Your task to perform on an android device: Go to Wikipedia Image 0: 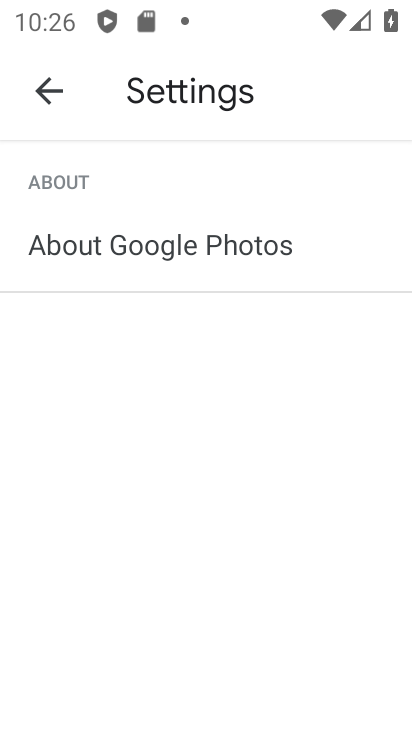
Step 0: press home button
Your task to perform on an android device: Go to Wikipedia Image 1: 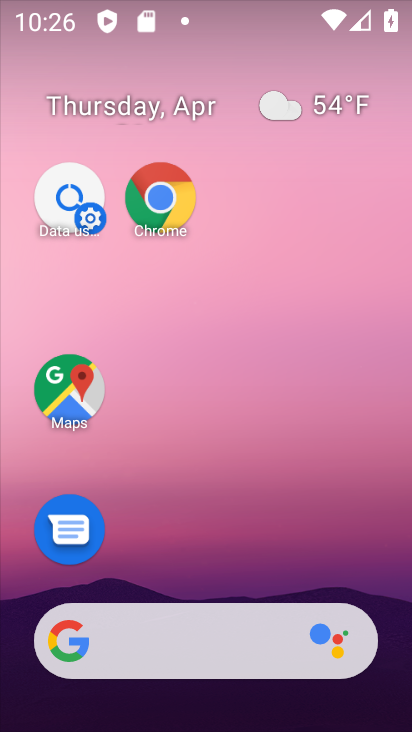
Step 1: drag from (199, 592) to (236, 30)
Your task to perform on an android device: Go to Wikipedia Image 2: 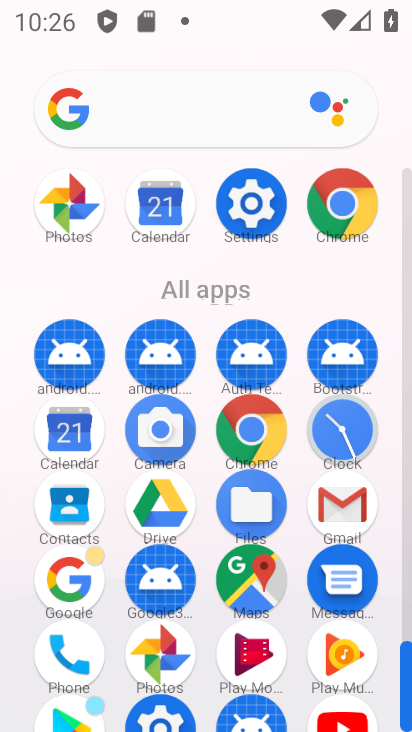
Step 2: click (245, 422)
Your task to perform on an android device: Go to Wikipedia Image 3: 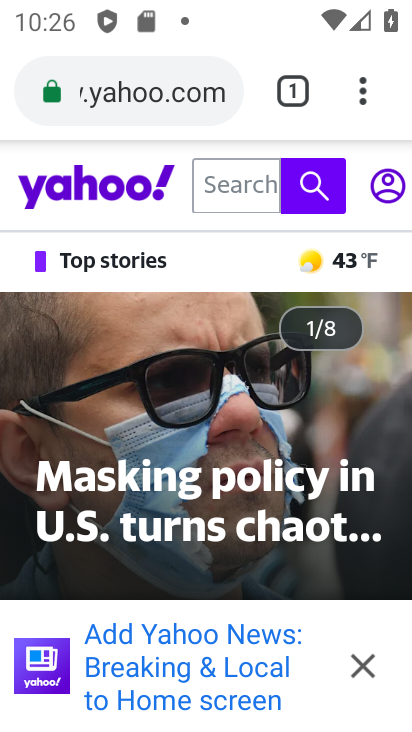
Step 3: click (284, 95)
Your task to perform on an android device: Go to Wikipedia Image 4: 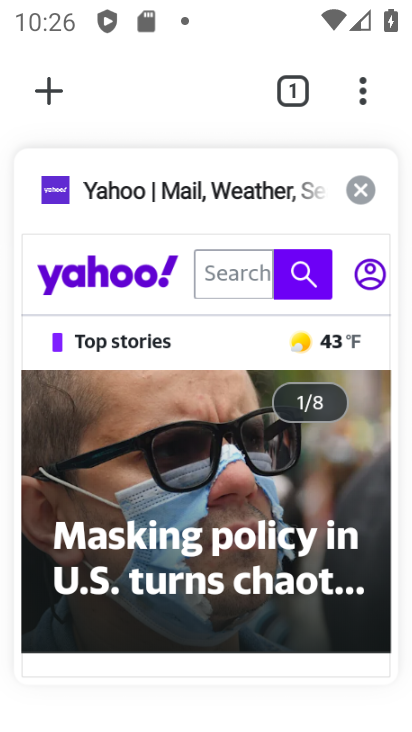
Step 4: click (49, 84)
Your task to perform on an android device: Go to Wikipedia Image 5: 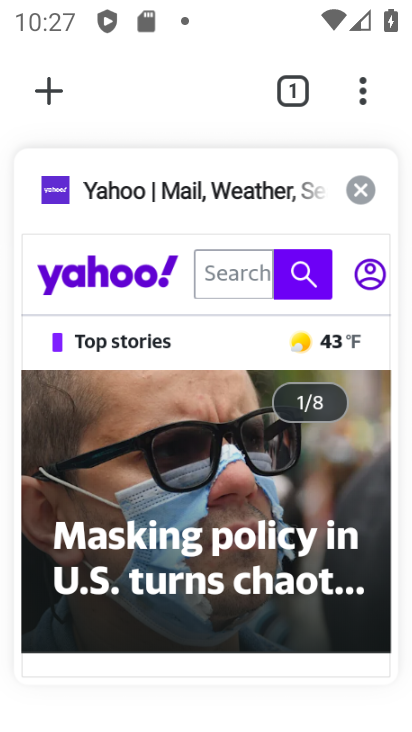
Step 5: click (57, 88)
Your task to perform on an android device: Go to Wikipedia Image 6: 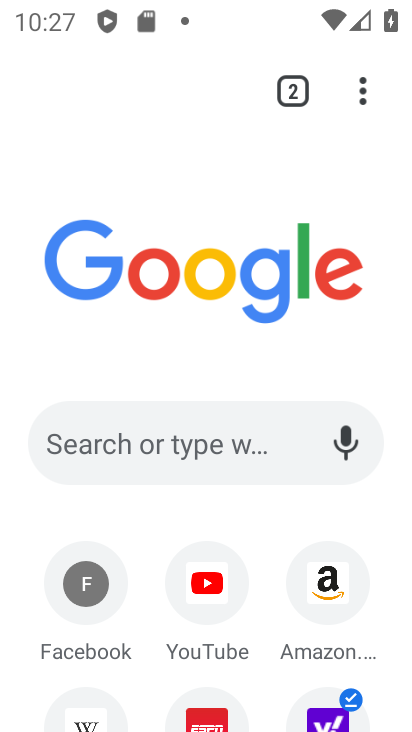
Step 6: drag from (263, 673) to (242, 575)
Your task to perform on an android device: Go to Wikipedia Image 7: 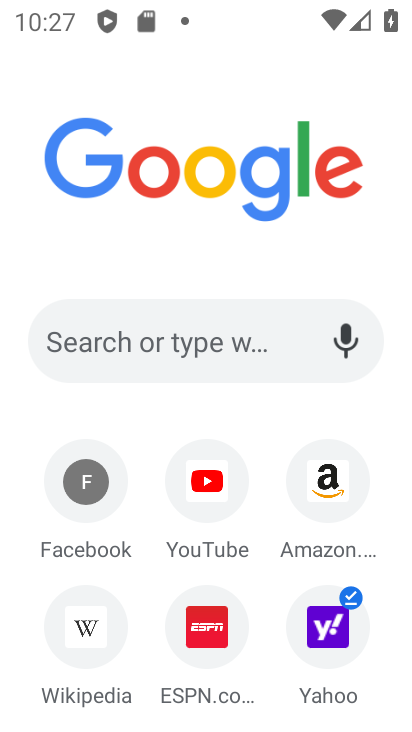
Step 7: click (93, 642)
Your task to perform on an android device: Go to Wikipedia Image 8: 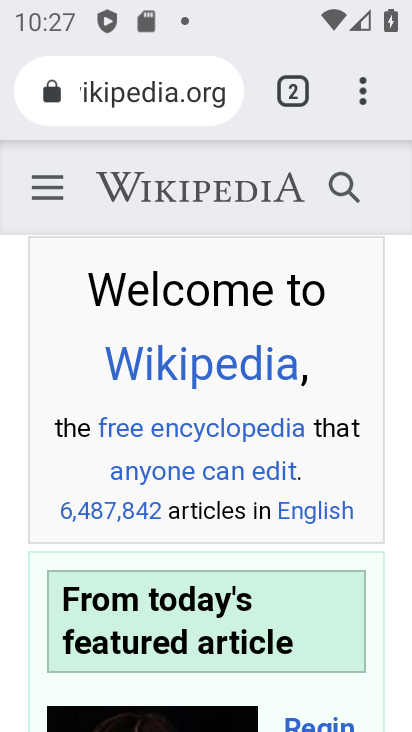
Step 8: task complete